Your task to perform on an android device: create a new album in the google photos Image 0: 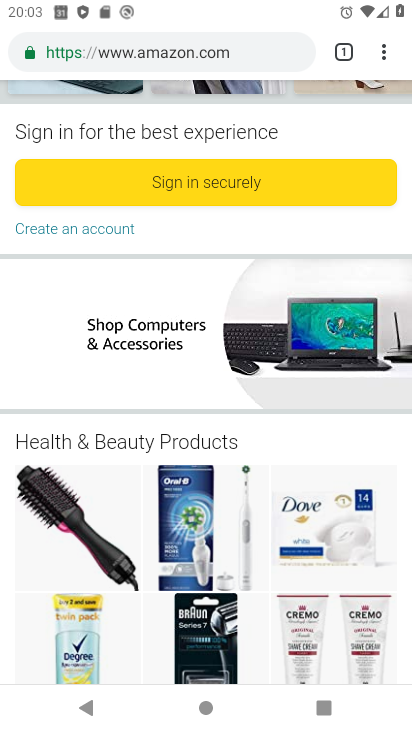
Step 0: drag from (390, 691) to (332, 211)
Your task to perform on an android device: create a new album in the google photos Image 1: 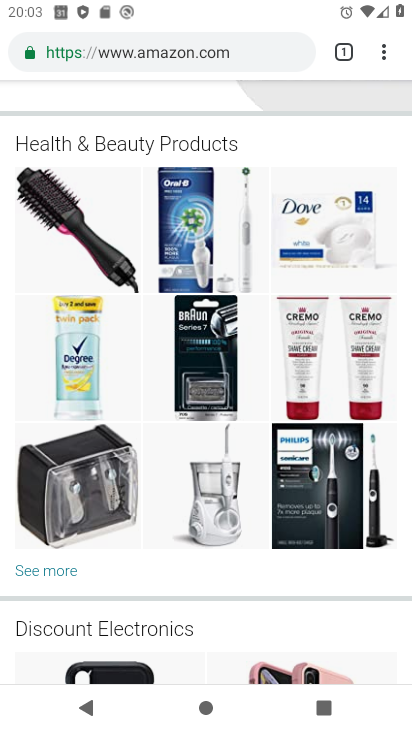
Step 1: press home button
Your task to perform on an android device: create a new album in the google photos Image 2: 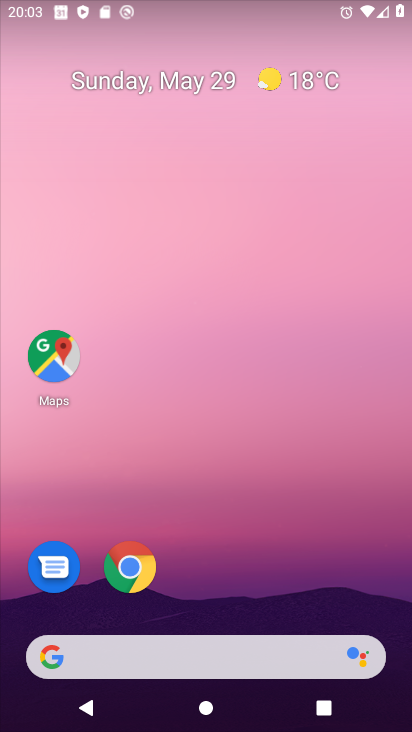
Step 2: drag from (396, 711) to (356, 76)
Your task to perform on an android device: create a new album in the google photos Image 3: 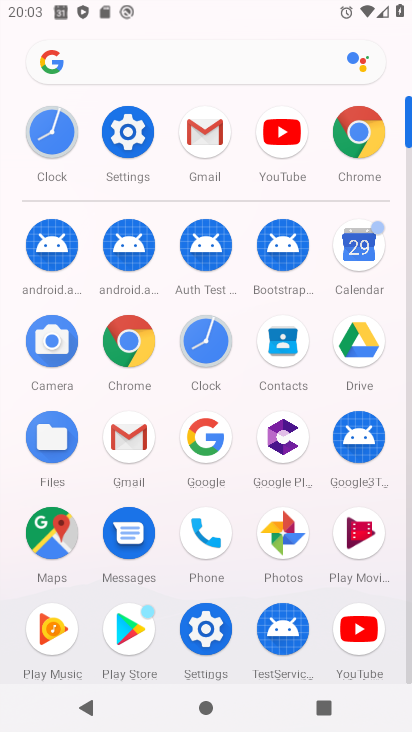
Step 3: click (293, 523)
Your task to perform on an android device: create a new album in the google photos Image 4: 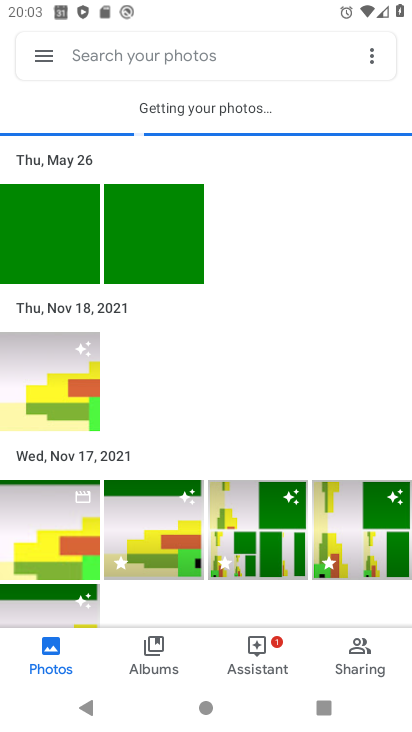
Step 4: click (368, 52)
Your task to perform on an android device: create a new album in the google photos Image 5: 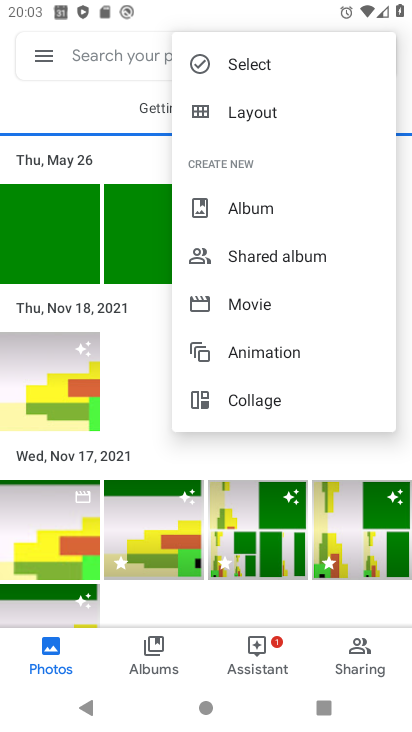
Step 5: click (243, 208)
Your task to perform on an android device: create a new album in the google photos Image 6: 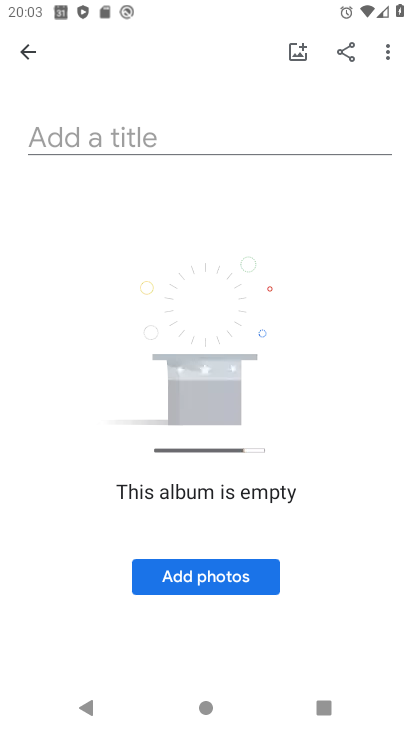
Step 6: click (118, 135)
Your task to perform on an android device: create a new album in the google photos Image 7: 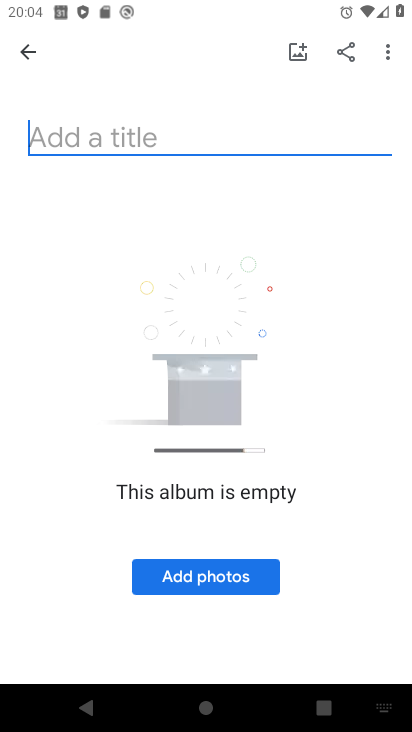
Step 7: type "Gigaa"
Your task to perform on an android device: create a new album in the google photos Image 8: 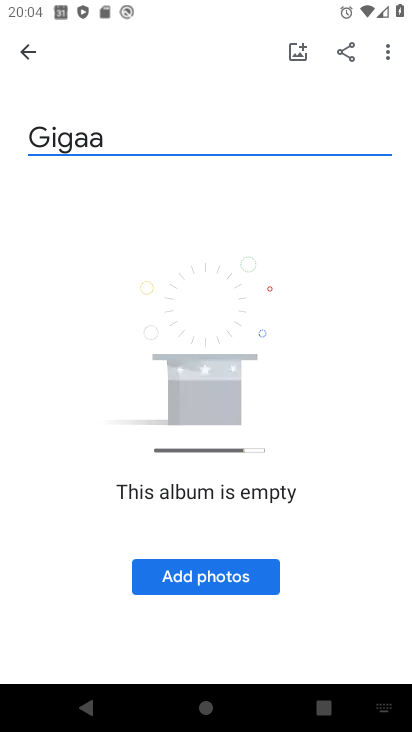
Step 8: click (206, 577)
Your task to perform on an android device: create a new album in the google photos Image 9: 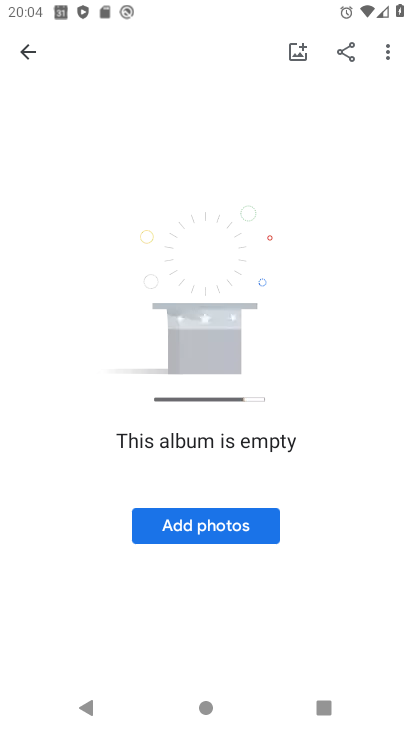
Step 9: click (224, 520)
Your task to perform on an android device: create a new album in the google photos Image 10: 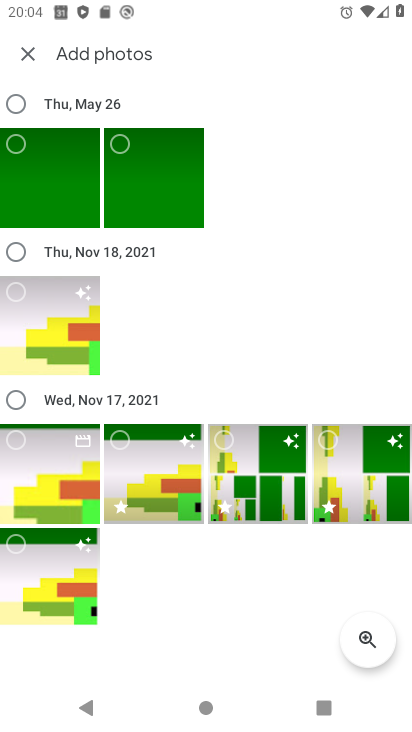
Step 10: click (12, 434)
Your task to perform on an android device: create a new album in the google photos Image 11: 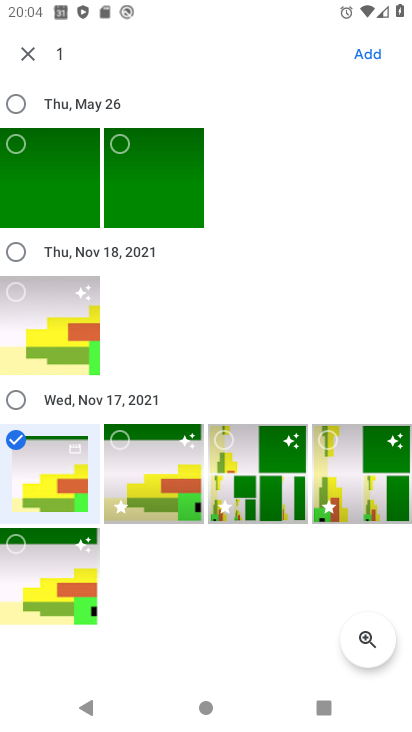
Step 11: click (111, 440)
Your task to perform on an android device: create a new album in the google photos Image 12: 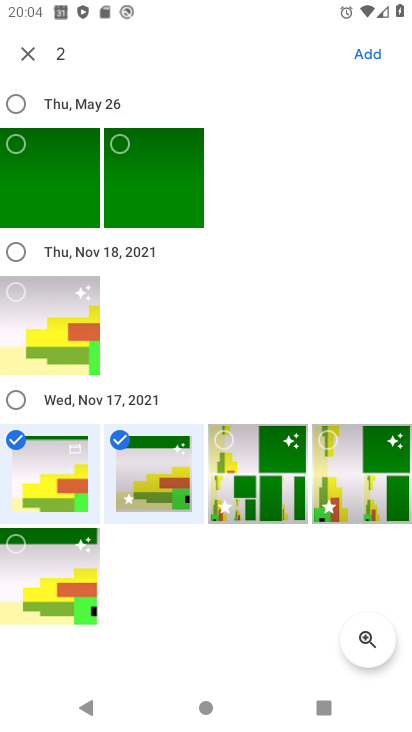
Step 12: click (221, 444)
Your task to perform on an android device: create a new album in the google photos Image 13: 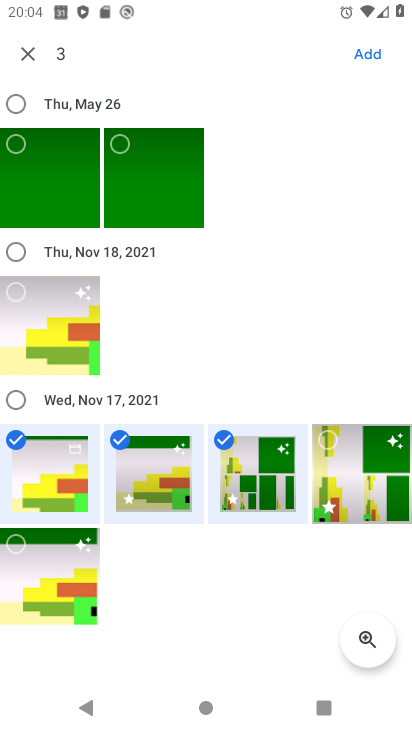
Step 13: click (329, 441)
Your task to perform on an android device: create a new album in the google photos Image 14: 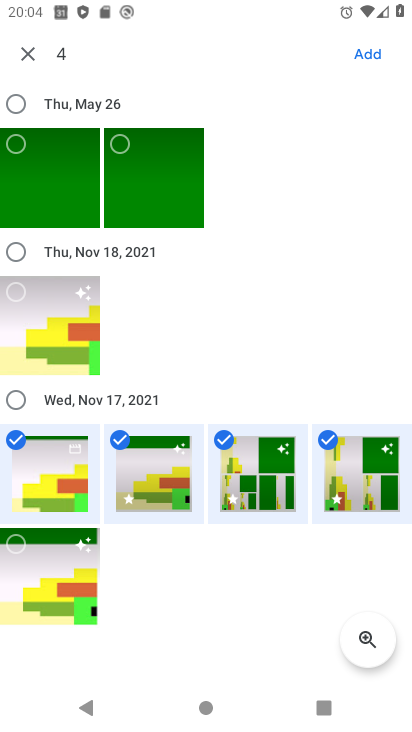
Step 14: click (376, 54)
Your task to perform on an android device: create a new album in the google photos Image 15: 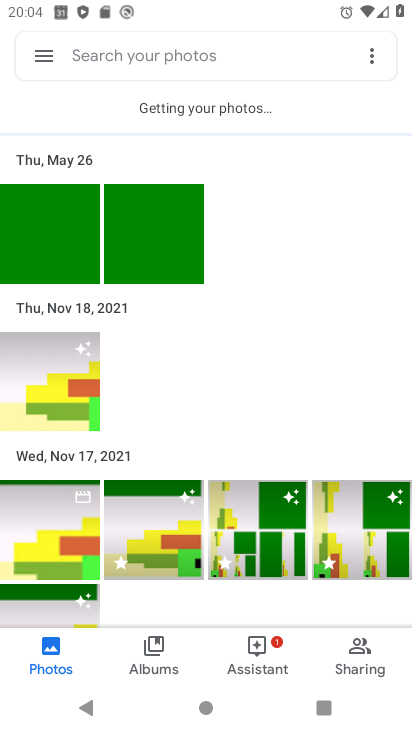
Step 15: task complete